Your task to perform on an android device: Search for sushi restaurants on Maps Image 0: 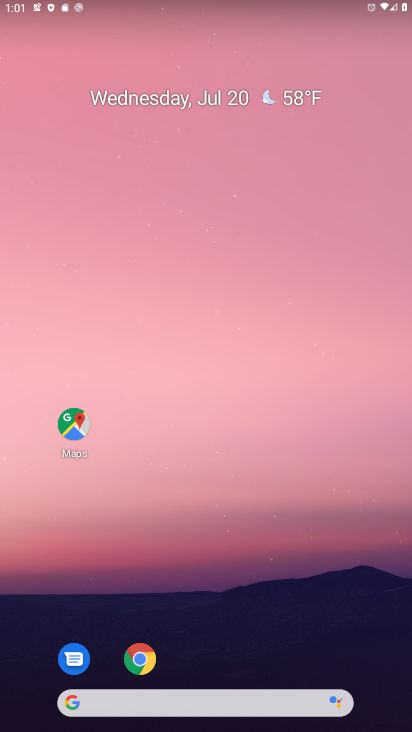
Step 0: click (70, 420)
Your task to perform on an android device: Search for sushi restaurants on Maps Image 1: 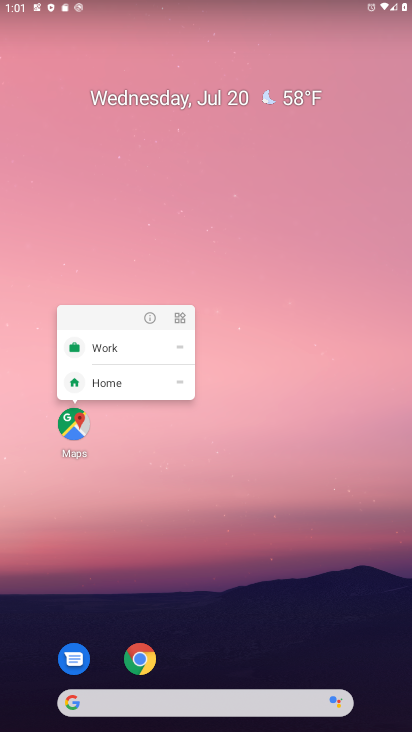
Step 1: click (72, 416)
Your task to perform on an android device: Search for sushi restaurants on Maps Image 2: 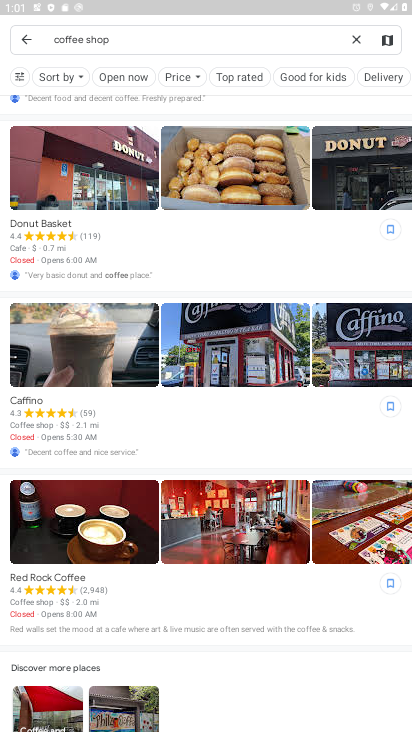
Step 2: click (344, 45)
Your task to perform on an android device: Search for sushi restaurants on Maps Image 3: 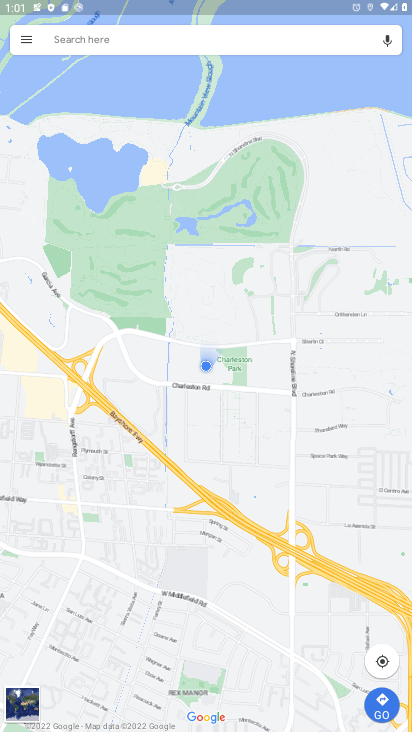
Step 3: click (72, 32)
Your task to perform on an android device: Search for sushi restaurants on Maps Image 4: 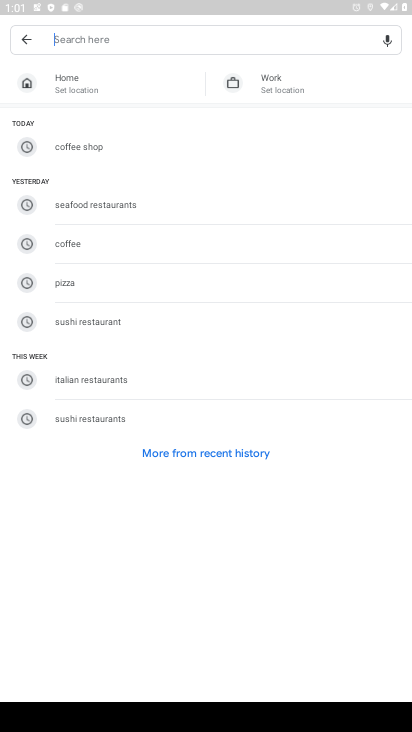
Step 4: click (87, 323)
Your task to perform on an android device: Search for sushi restaurants on Maps Image 5: 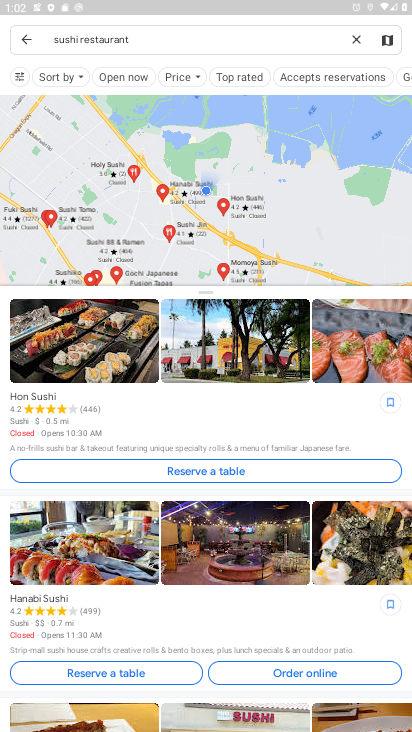
Step 5: task complete